Your task to perform on an android device: turn off notifications in google photos Image 0: 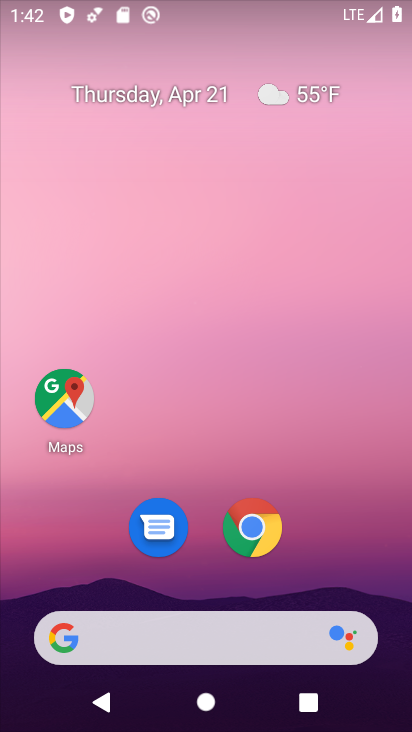
Step 0: drag from (365, 553) to (352, 162)
Your task to perform on an android device: turn off notifications in google photos Image 1: 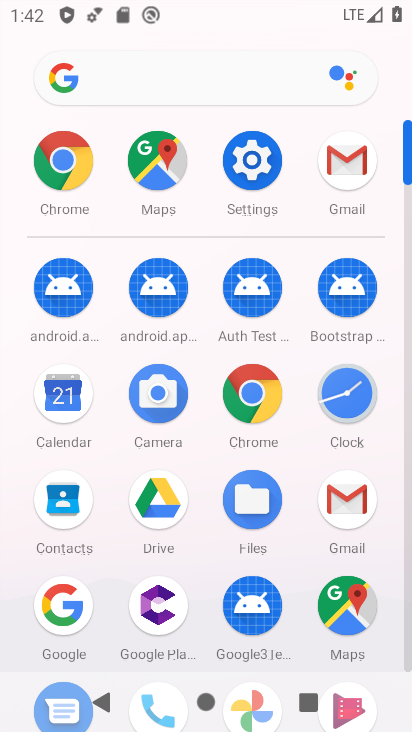
Step 1: drag from (202, 561) to (200, 167)
Your task to perform on an android device: turn off notifications in google photos Image 2: 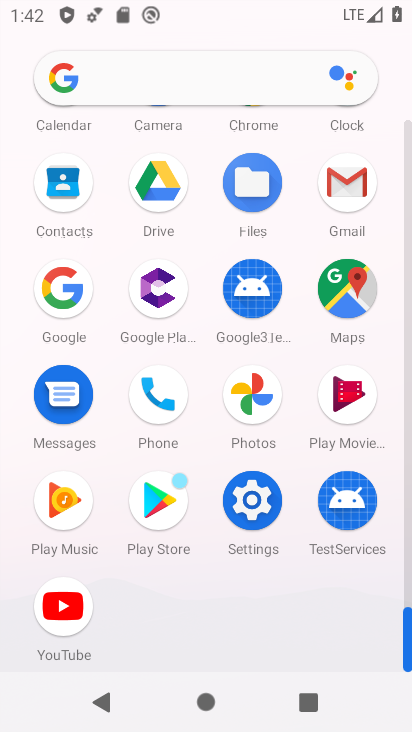
Step 2: click (244, 397)
Your task to perform on an android device: turn off notifications in google photos Image 3: 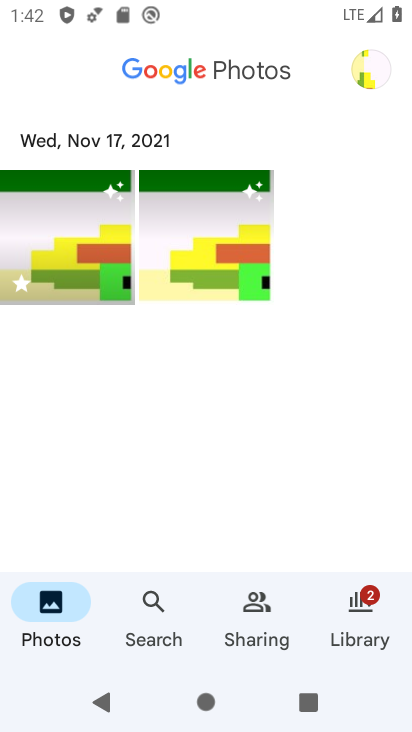
Step 3: click (366, 67)
Your task to perform on an android device: turn off notifications in google photos Image 4: 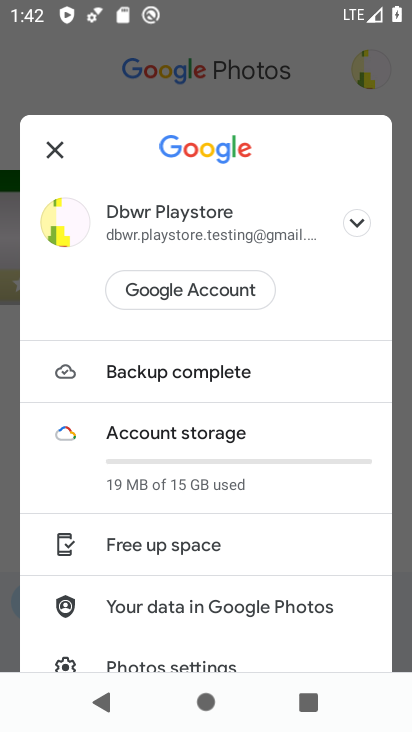
Step 4: drag from (318, 544) to (320, 385)
Your task to perform on an android device: turn off notifications in google photos Image 5: 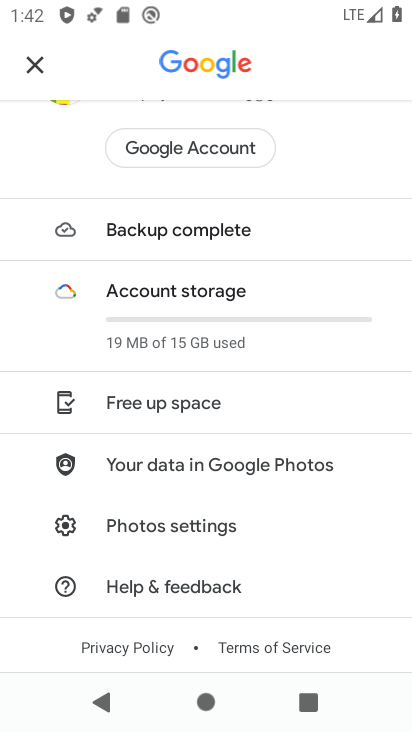
Step 5: drag from (333, 545) to (343, 392)
Your task to perform on an android device: turn off notifications in google photos Image 6: 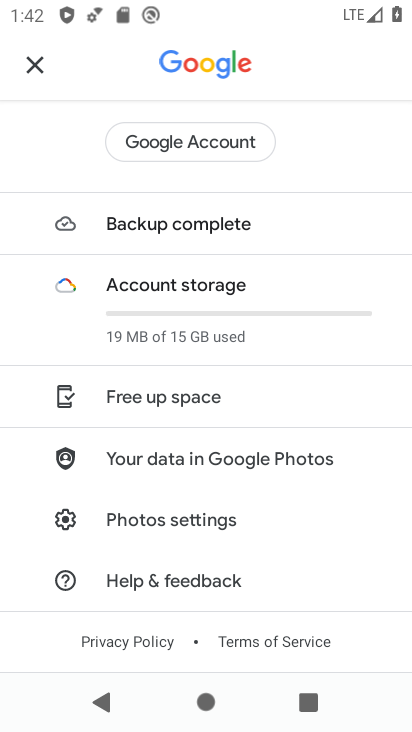
Step 6: drag from (340, 568) to (349, 388)
Your task to perform on an android device: turn off notifications in google photos Image 7: 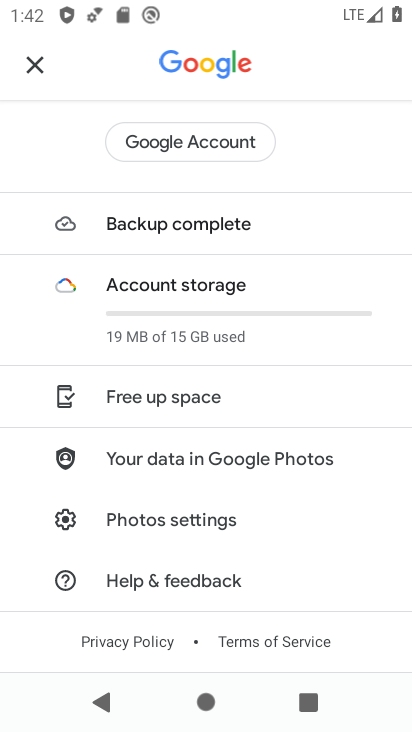
Step 7: click (224, 523)
Your task to perform on an android device: turn off notifications in google photos Image 8: 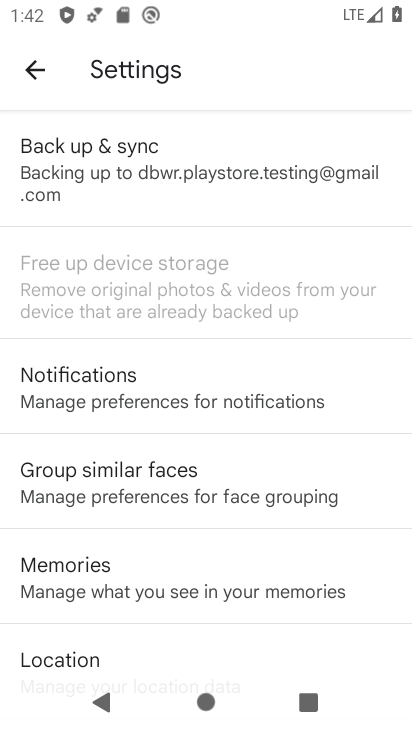
Step 8: drag from (347, 546) to (362, 428)
Your task to perform on an android device: turn off notifications in google photos Image 9: 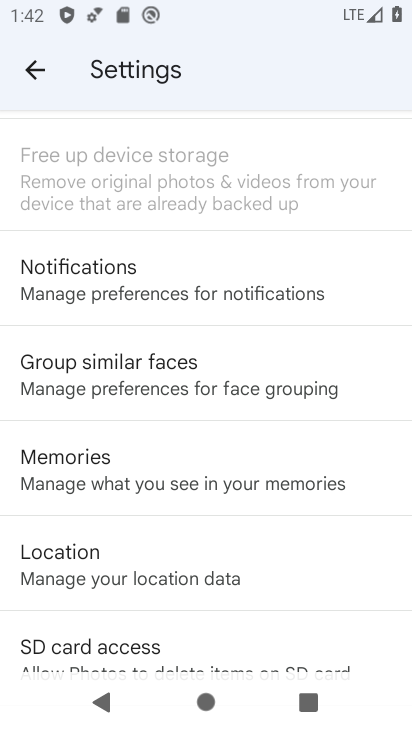
Step 9: click (273, 285)
Your task to perform on an android device: turn off notifications in google photos Image 10: 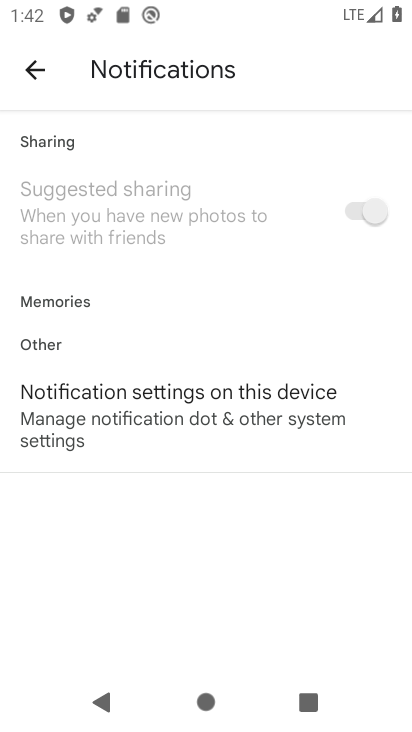
Step 10: click (240, 411)
Your task to perform on an android device: turn off notifications in google photos Image 11: 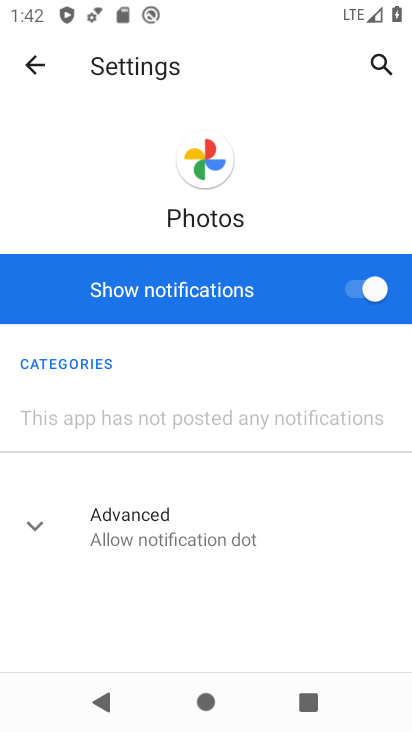
Step 11: click (351, 287)
Your task to perform on an android device: turn off notifications in google photos Image 12: 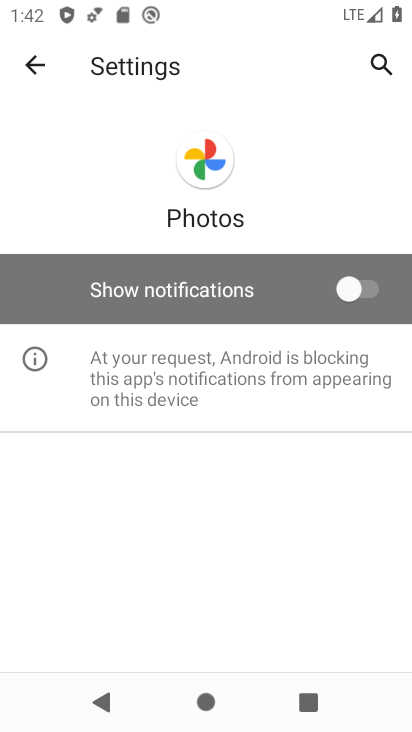
Step 12: task complete